Your task to perform on an android device: set an alarm Image 0: 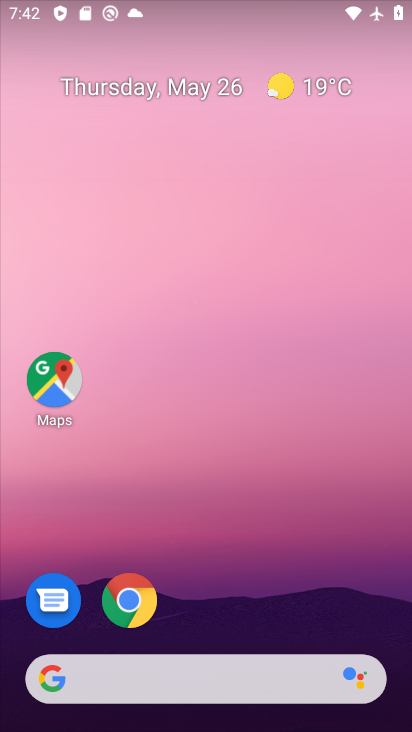
Step 0: press home button
Your task to perform on an android device: set an alarm Image 1: 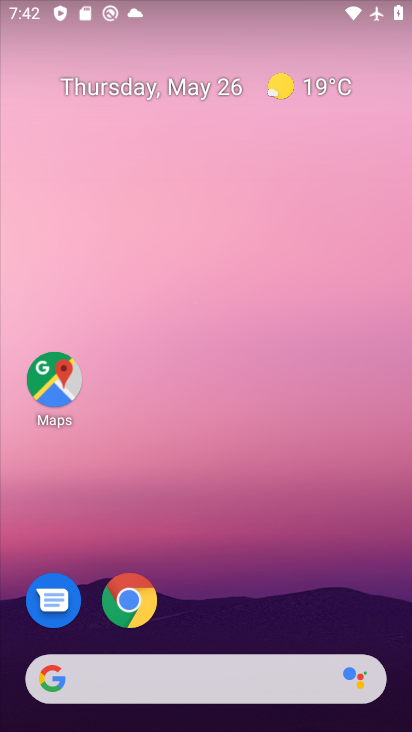
Step 1: drag from (271, 629) to (332, 220)
Your task to perform on an android device: set an alarm Image 2: 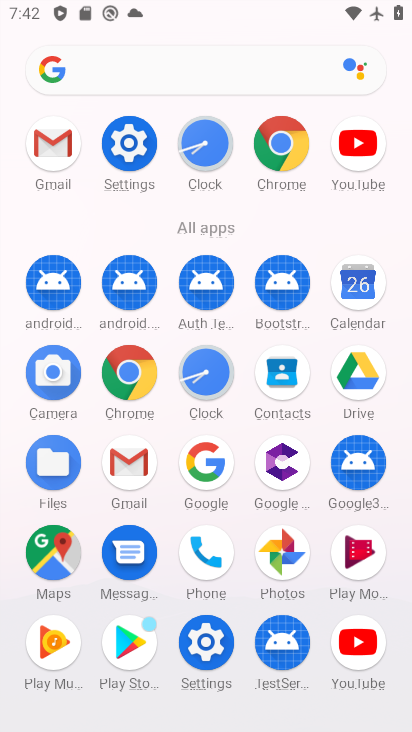
Step 2: drag from (222, 629) to (256, 268)
Your task to perform on an android device: set an alarm Image 3: 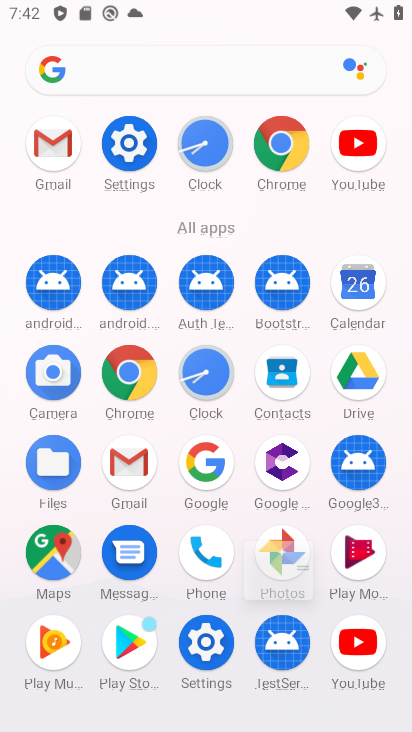
Step 3: click (213, 366)
Your task to perform on an android device: set an alarm Image 4: 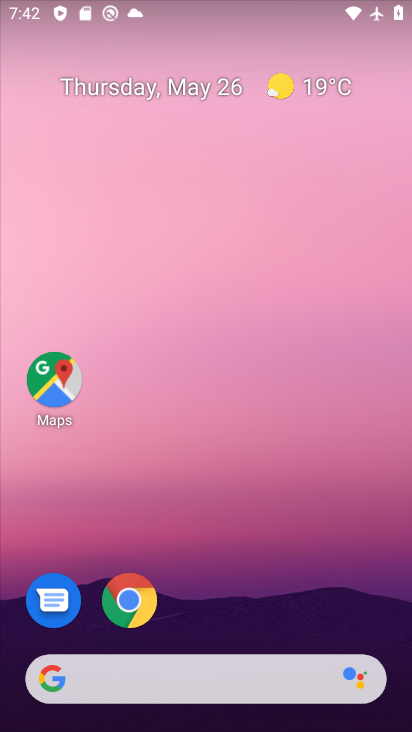
Step 4: click (213, 366)
Your task to perform on an android device: set an alarm Image 5: 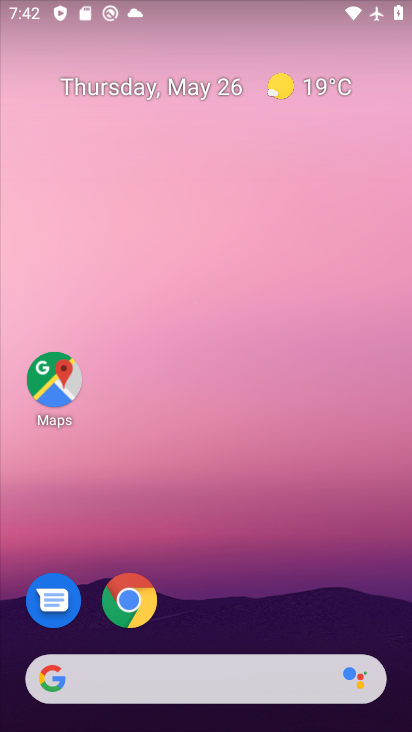
Step 5: drag from (261, 621) to (283, 188)
Your task to perform on an android device: set an alarm Image 6: 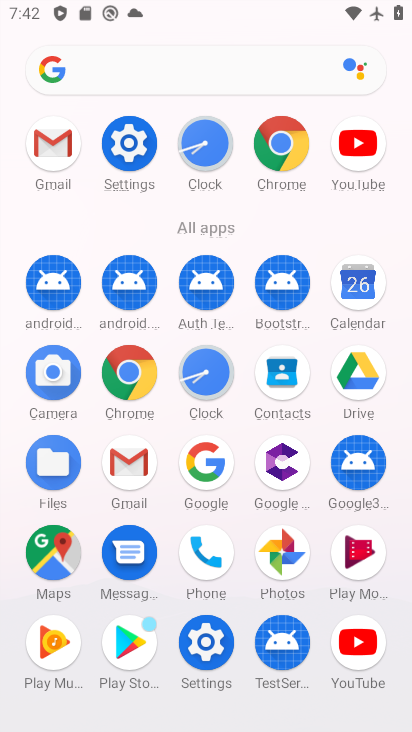
Step 6: click (217, 386)
Your task to perform on an android device: set an alarm Image 7: 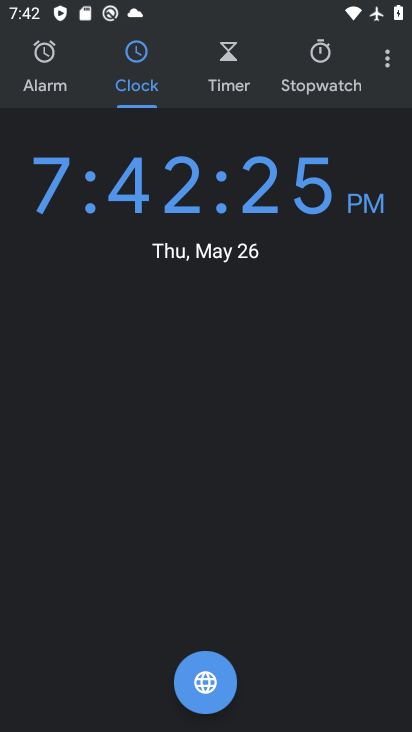
Step 7: click (50, 70)
Your task to perform on an android device: set an alarm Image 8: 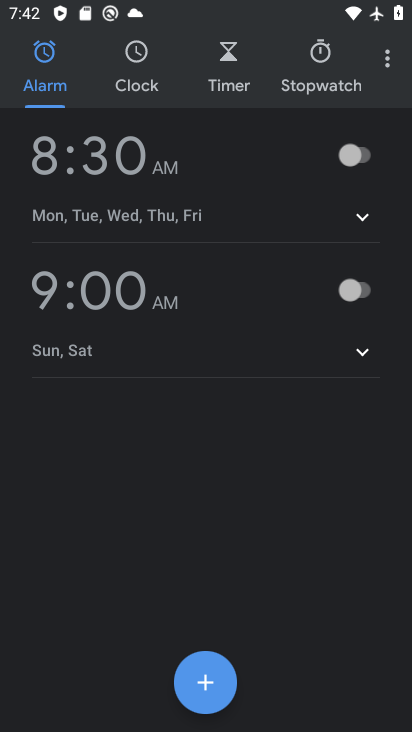
Step 8: click (364, 158)
Your task to perform on an android device: set an alarm Image 9: 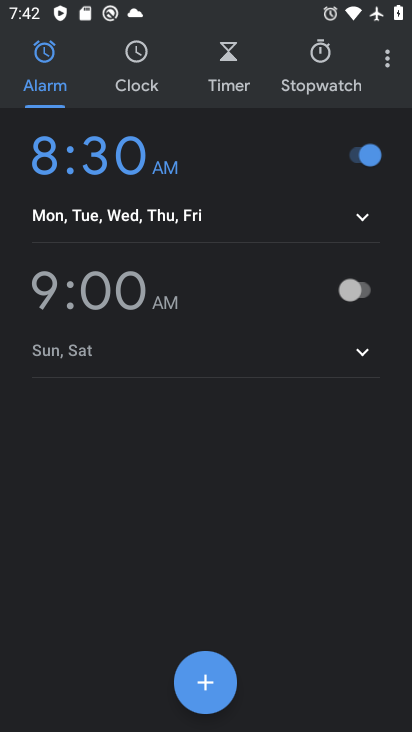
Step 9: task complete